Your task to perform on an android device: Show me productivity apps on the Play Store Image 0: 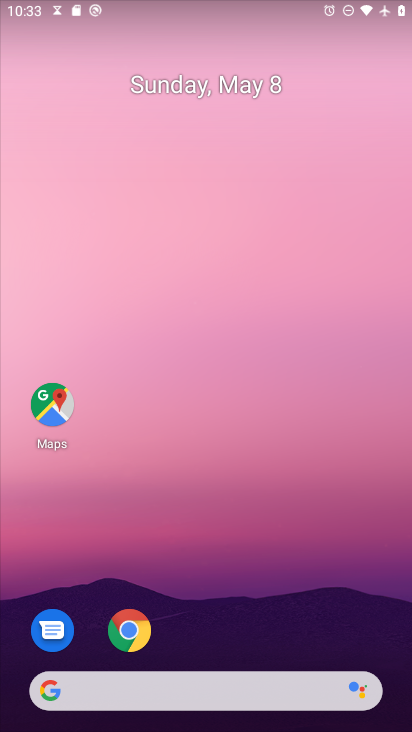
Step 0: drag from (224, 688) to (335, 90)
Your task to perform on an android device: Show me productivity apps on the Play Store Image 1: 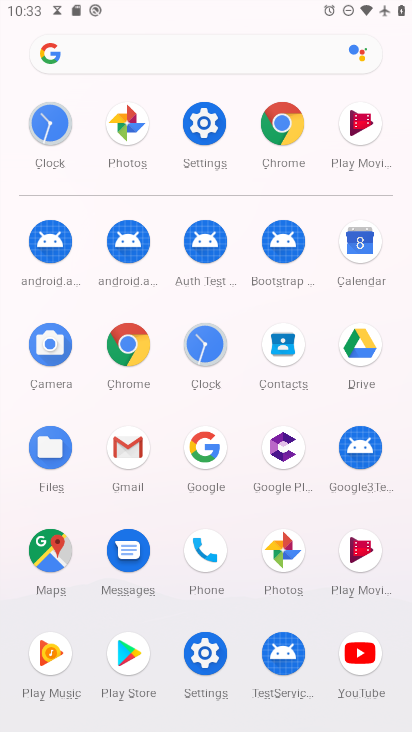
Step 1: click (127, 657)
Your task to perform on an android device: Show me productivity apps on the Play Store Image 2: 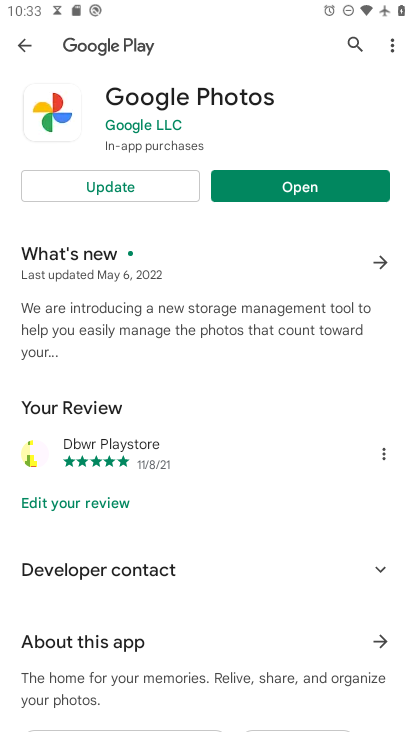
Step 2: click (20, 46)
Your task to perform on an android device: Show me productivity apps on the Play Store Image 3: 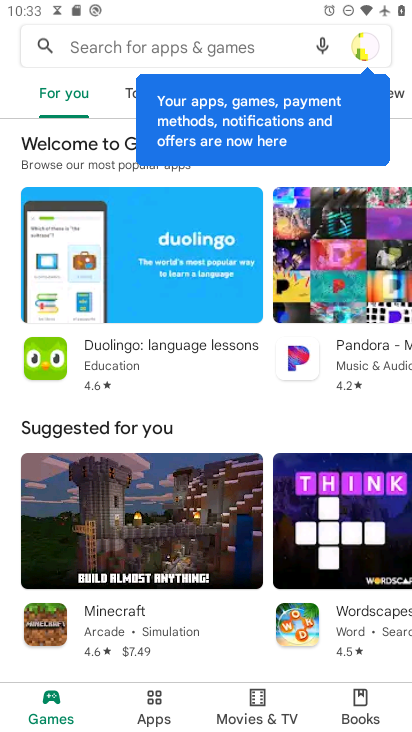
Step 3: click (156, 710)
Your task to perform on an android device: Show me productivity apps on the Play Store Image 4: 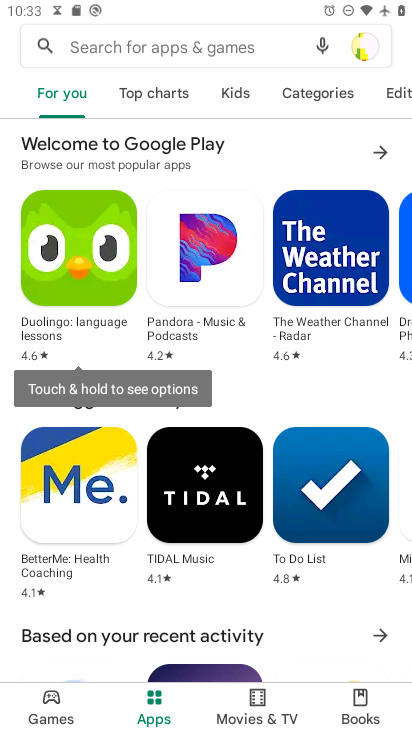
Step 4: click (324, 91)
Your task to perform on an android device: Show me productivity apps on the Play Store Image 5: 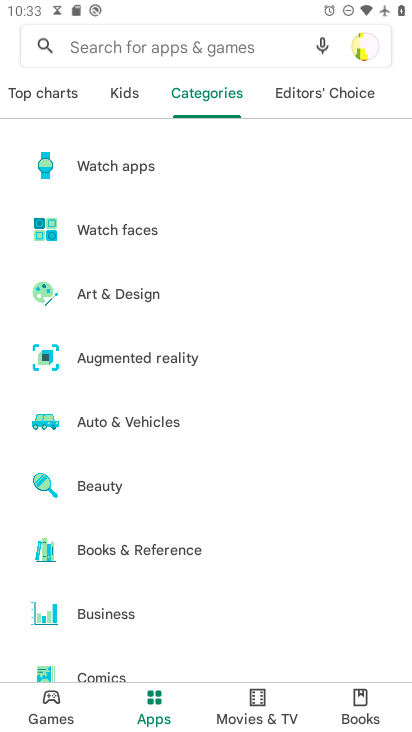
Step 5: drag from (184, 641) to (343, 185)
Your task to perform on an android device: Show me productivity apps on the Play Store Image 6: 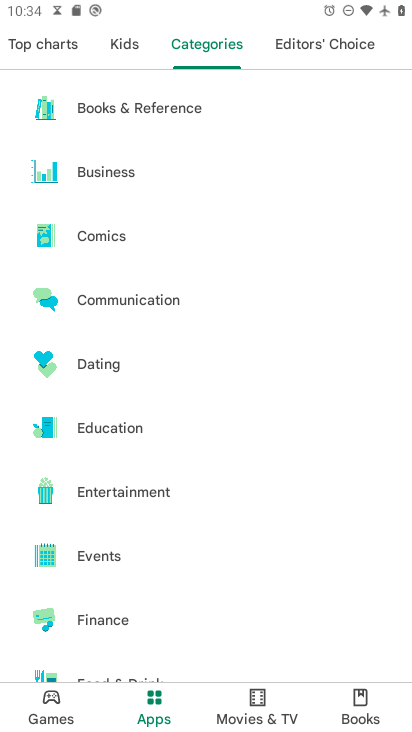
Step 6: drag from (177, 617) to (384, 93)
Your task to perform on an android device: Show me productivity apps on the Play Store Image 7: 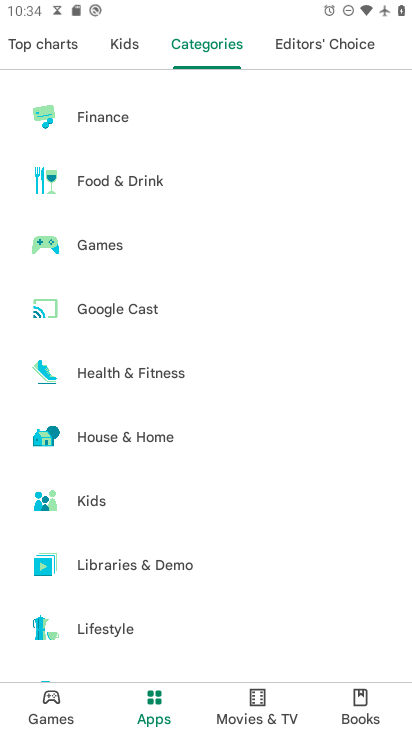
Step 7: drag from (217, 605) to (391, 105)
Your task to perform on an android device: Show me productivity apps on the Play Store Image 8: 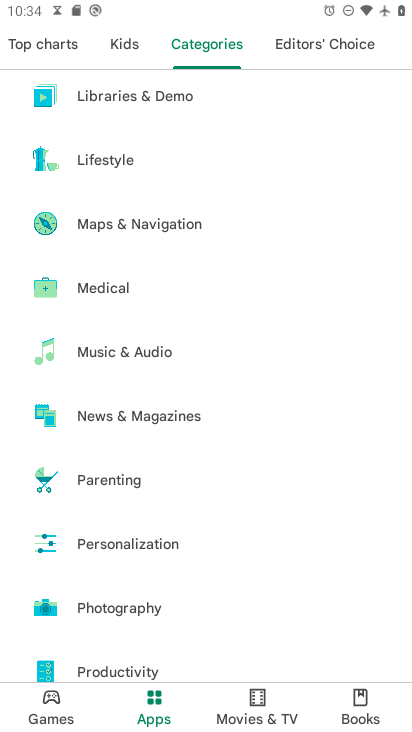
Step 8: drag from (233, 461) to (354, 189)
Your task to perform on an android device: Show me productivity apps on the Play Store Image 9: 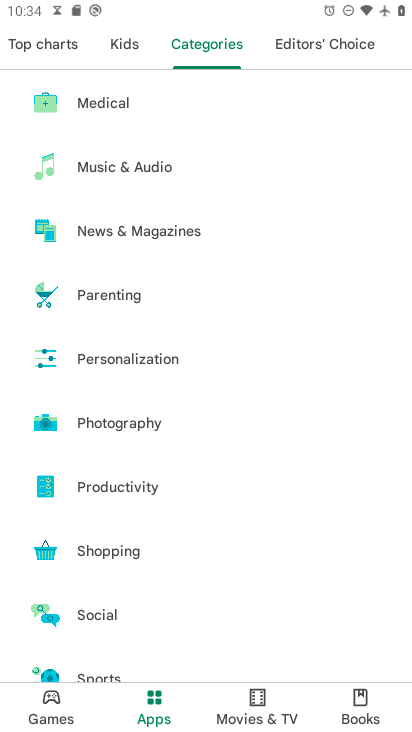
Step 9: click (129, 483)
Your task to perform on an android device: Show me productivity apps on the Play Store Image 10: 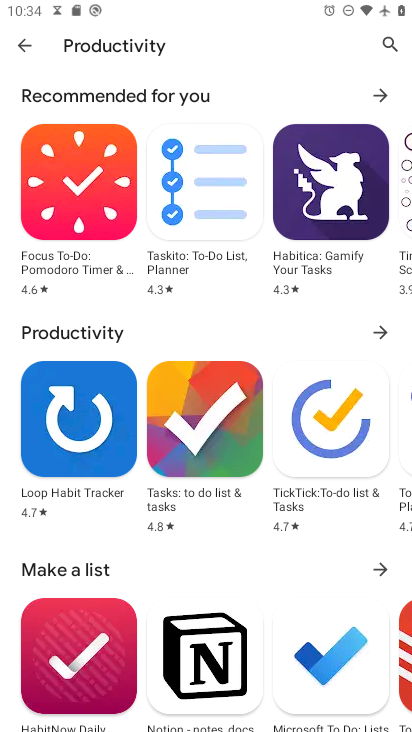
Step 10: task complete